Your task to perform on an android device: change timer sound Image 0: 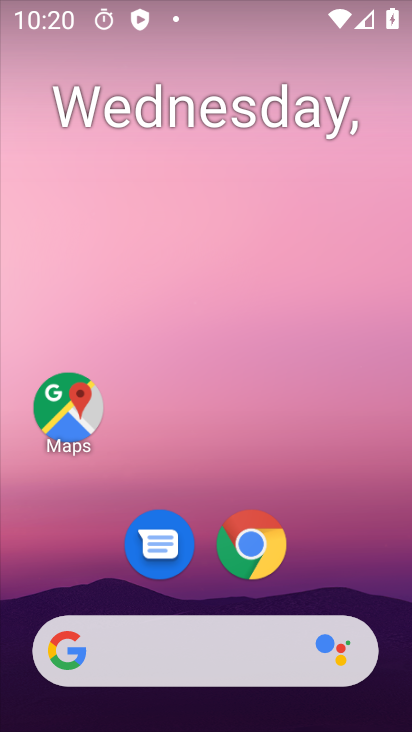
Step 0: press home button
Your task to perform on an android device: change timer sound Image 1: 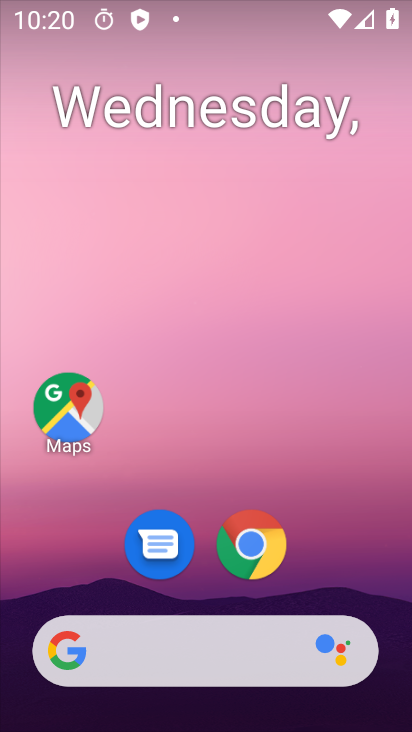
Step 1: drag from (261, 693) to (167, 4)
Your task to perform on an android device: change timer sound Image 2: 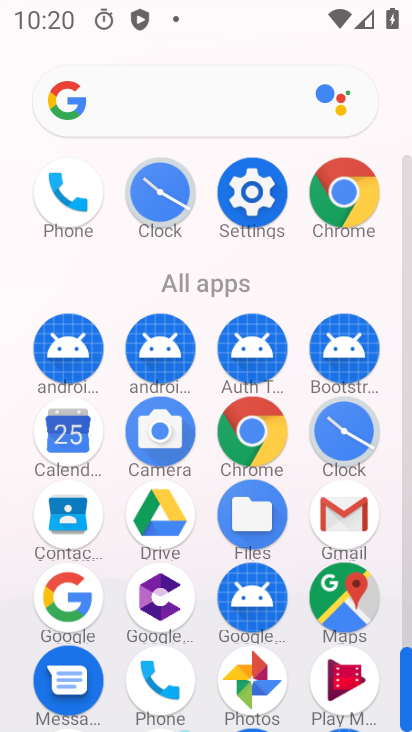
Step 2: click (357, 439)
Your task to perform on an android device: change timer sound Image 3: 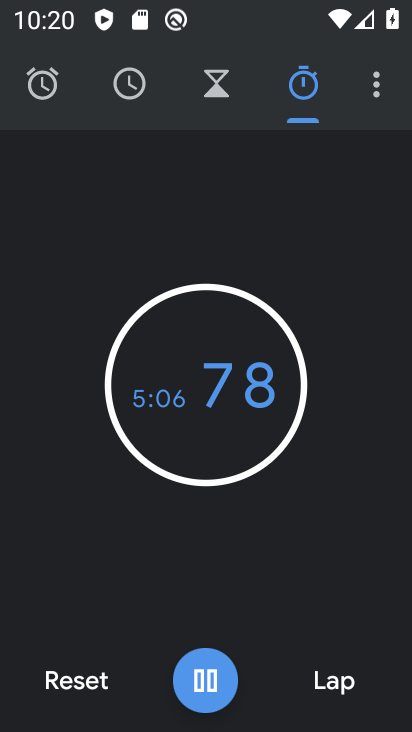
Step 3: click (377, 88)
Your task to perform on an android device: change timer sound Image 4: 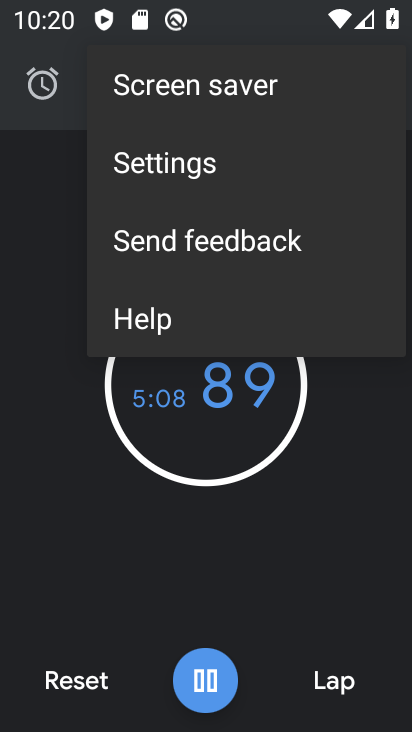
Step 4: click (187, 181)
Your task to perform on an android device: change timer sound Image 5: 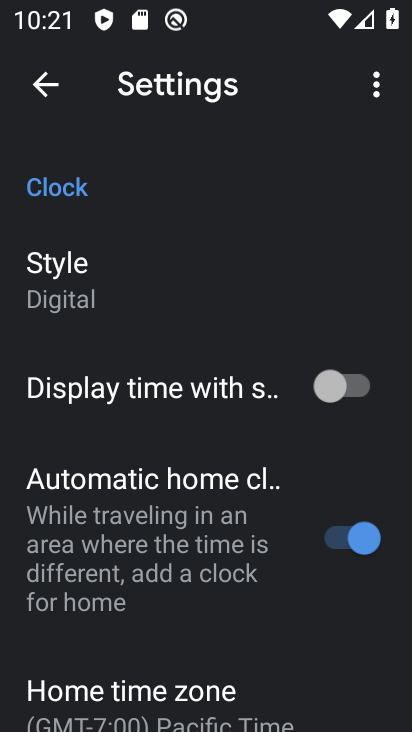
Step 5: drag from (195, 593) to (201, 182)
Your task to perform on an android device: change timer sound Image 6: 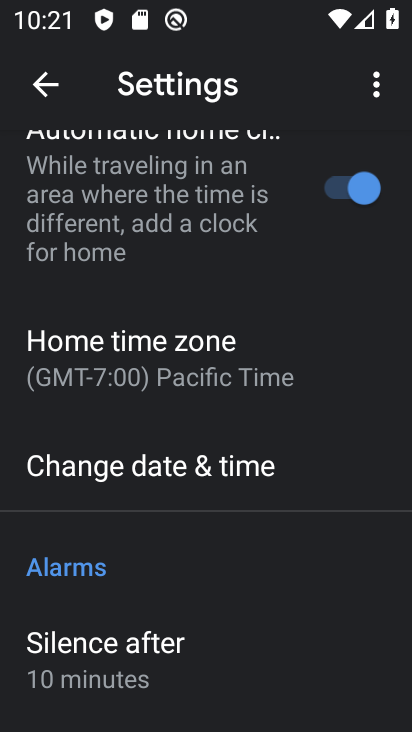
Step 6: drag from (175, 595) to (190, 209)
Your task to perform on an android device: change timer sound Image 7: 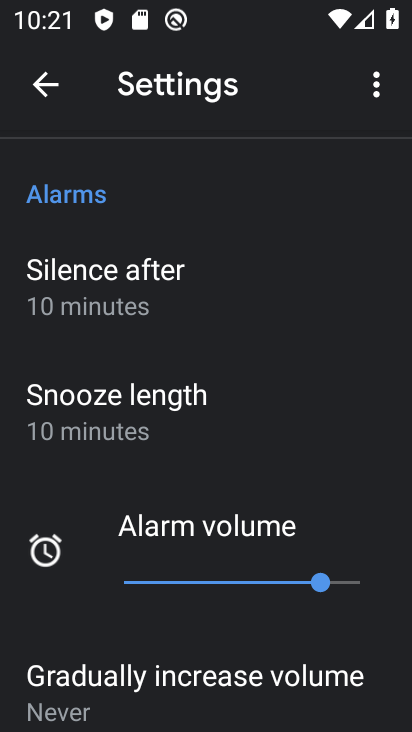
Step 7: drag from (168, 465) to (239, 143)
Your task to perform on an android device: change timer sound Image 8: 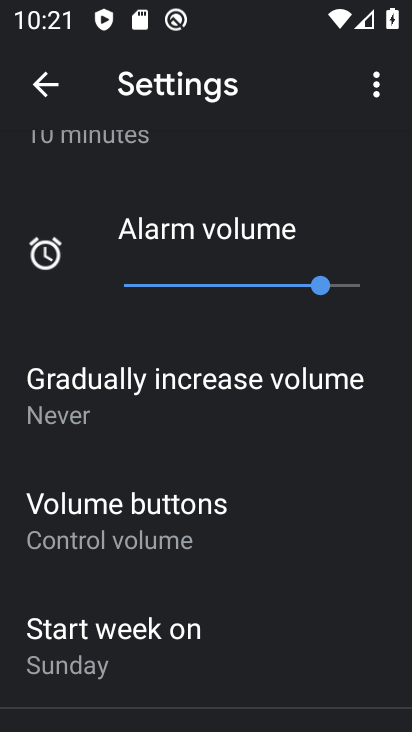
Step 8: drag from (145, 590) to (155, 261)
Your task to perform on an android device: change timer sound Image 9: 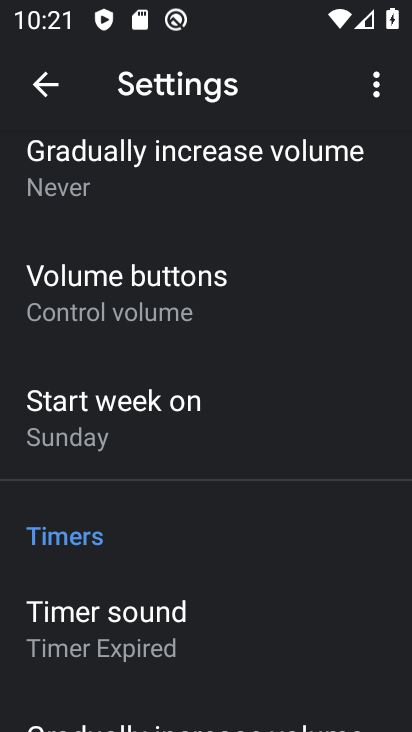
Step 9: click (176, 604)
Your task to perform on an android device: change timer sound Image 10: 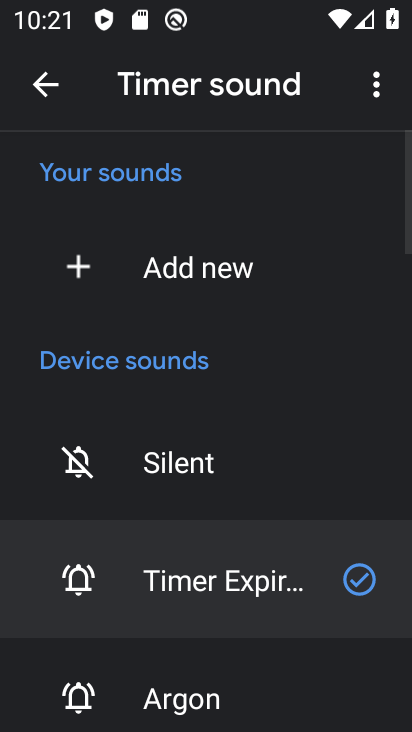
Step 10: click (180, 681)
Your task to perform on an android device: change timer sound Image 11: 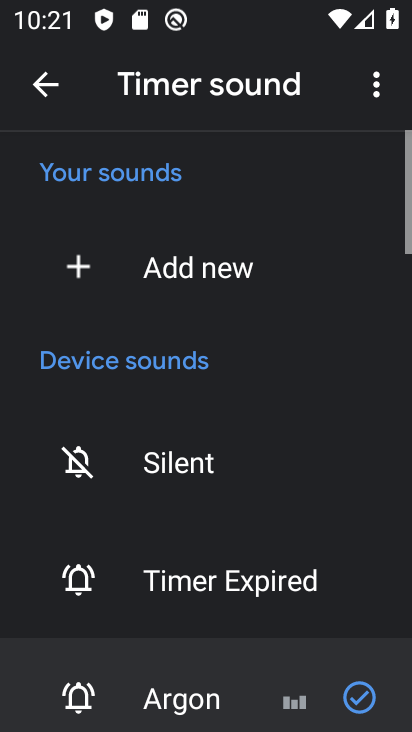
Step 11: task complete